Your task to perform on an android device: uninstall "Google News" Image 0: 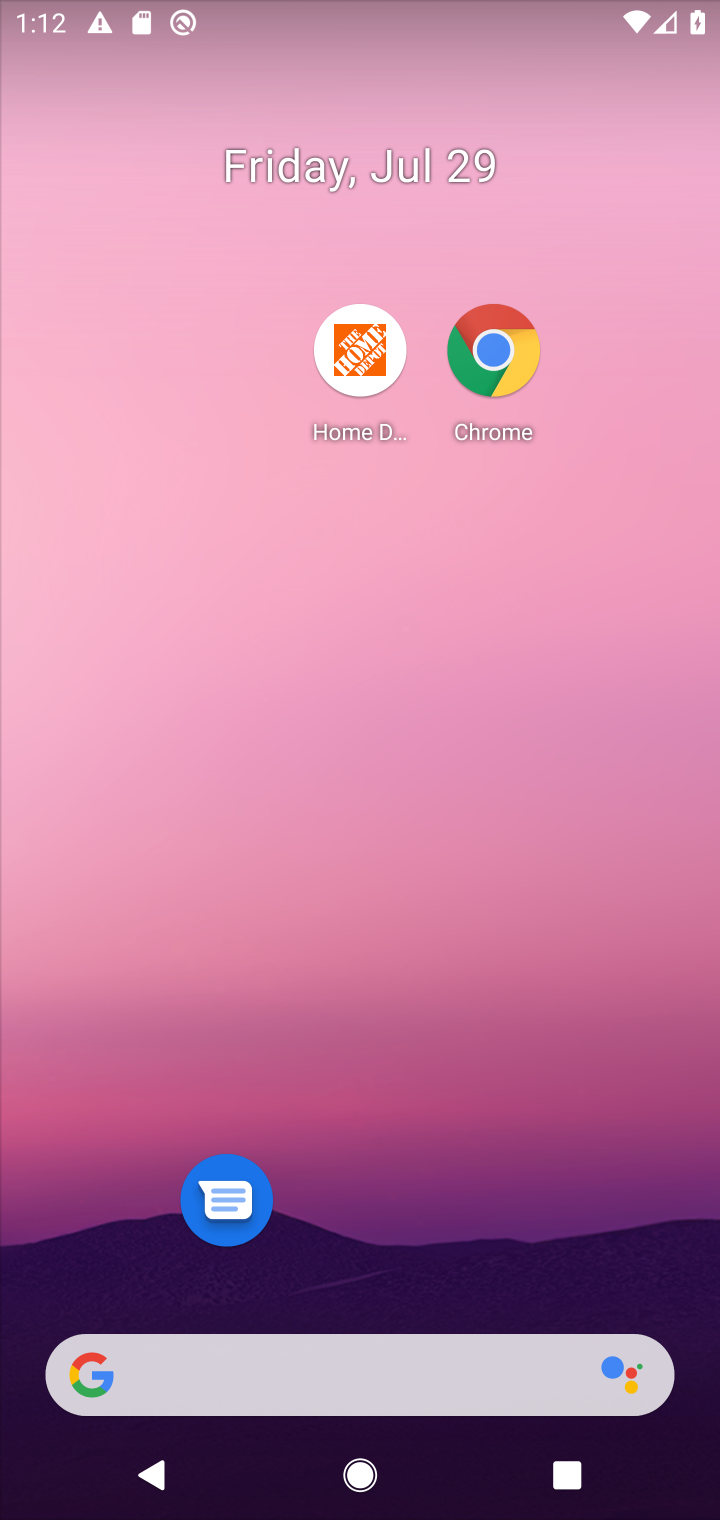
Step 0: drag from (514, 1022) to (348, 28)
Your task to perform on an android device: uninstall "Google News" Image 1: 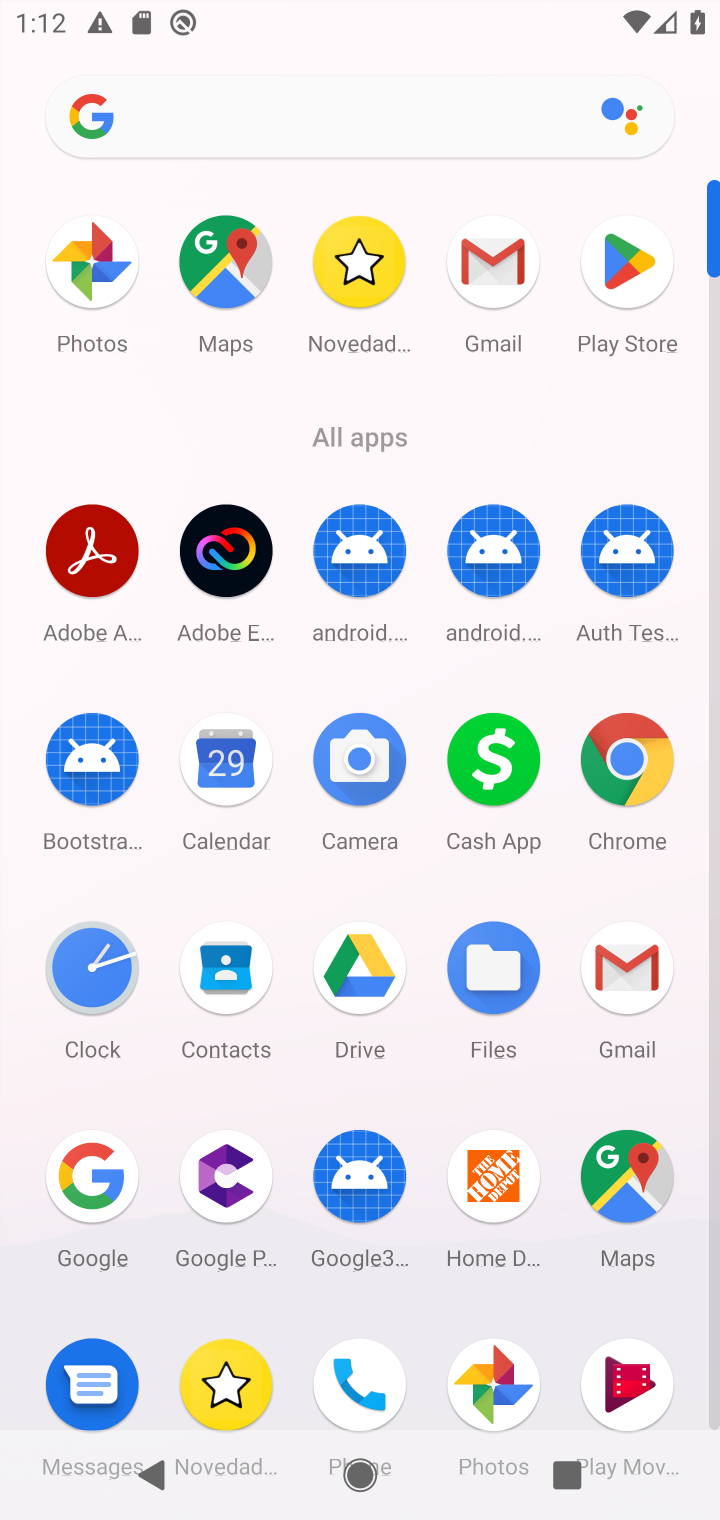
Step 1: click (626, 264)
Your task to perform on an android device: uninstall "Google News" Image 2: 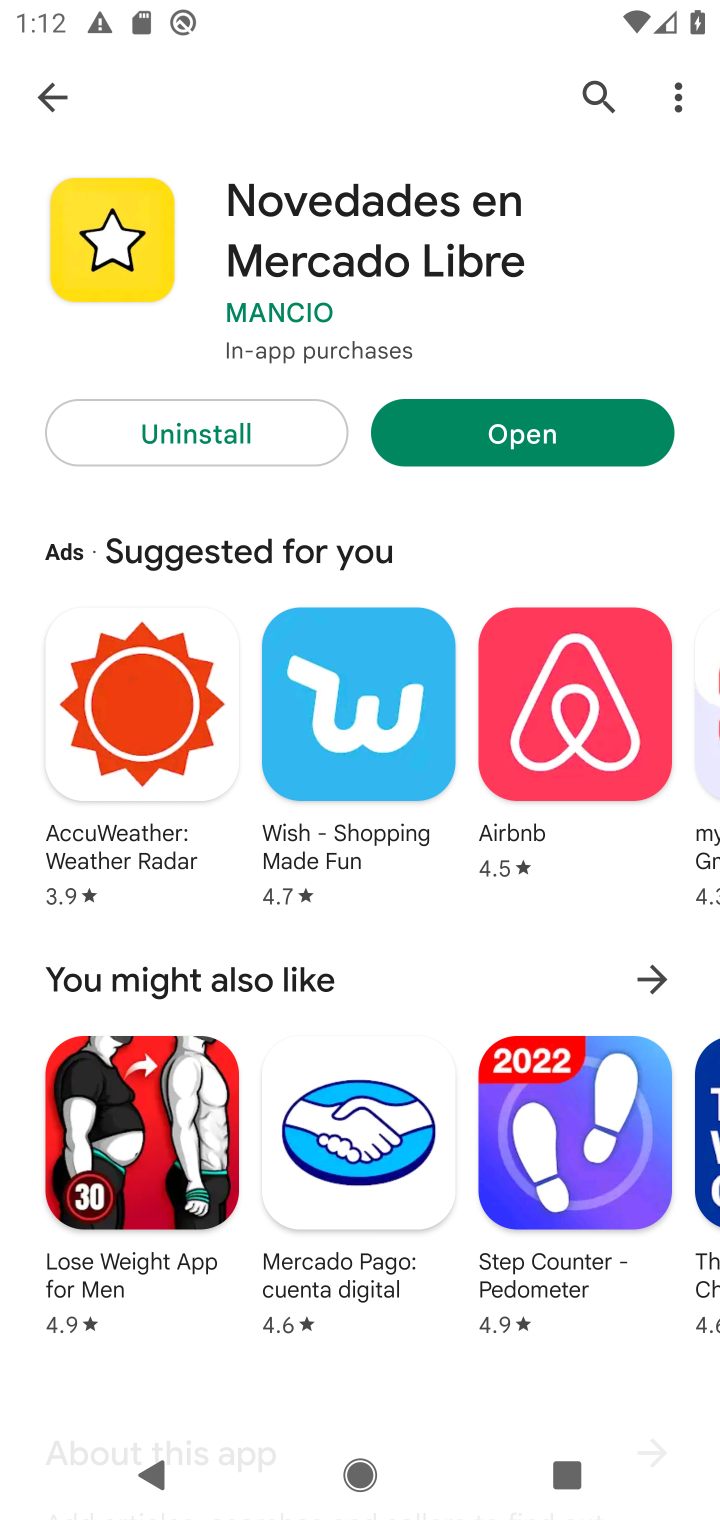
Step 2: click (589, 86)
Your task to perform on an android device: uninstall "Google News" Image 3: 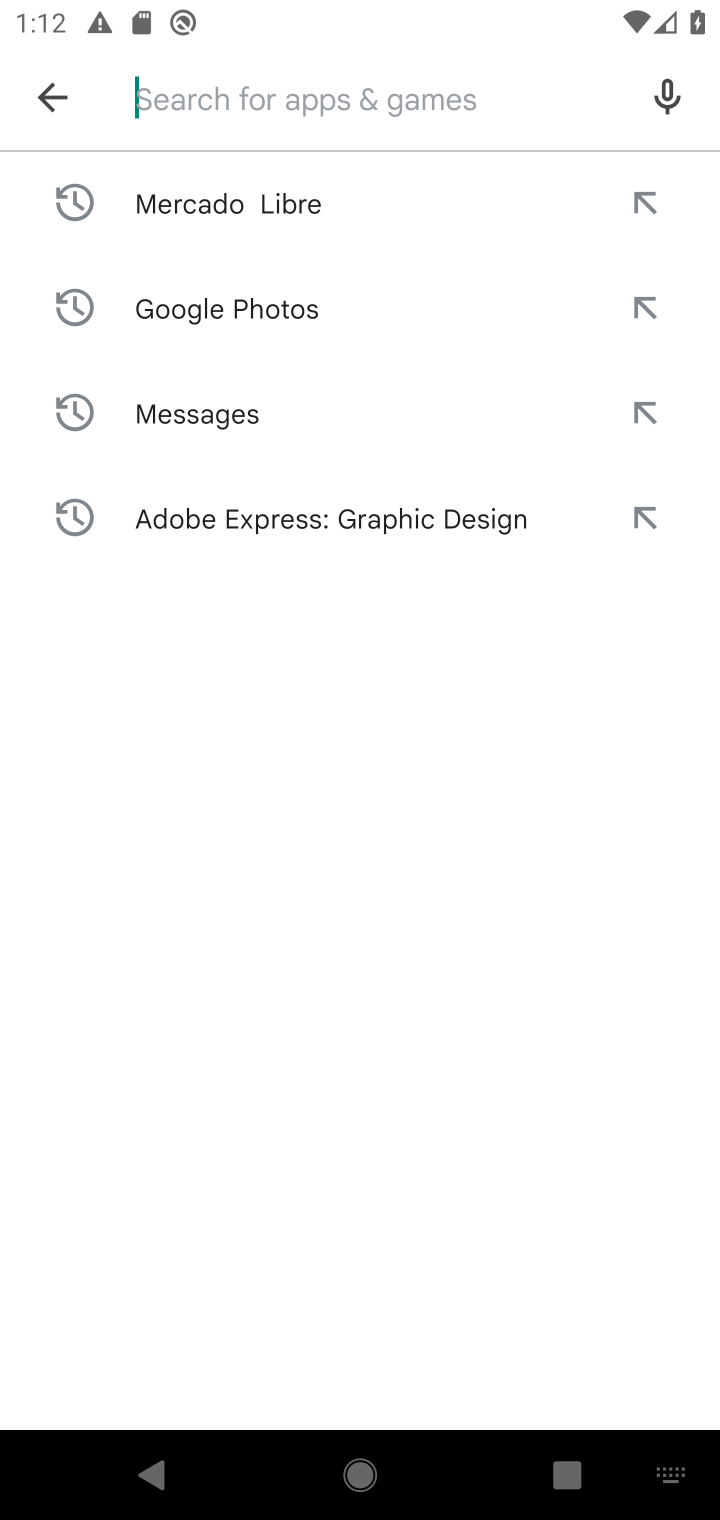
Step 3: type "Google News"
Your task to perform on an android device: uninstall "Google News" Image 4: 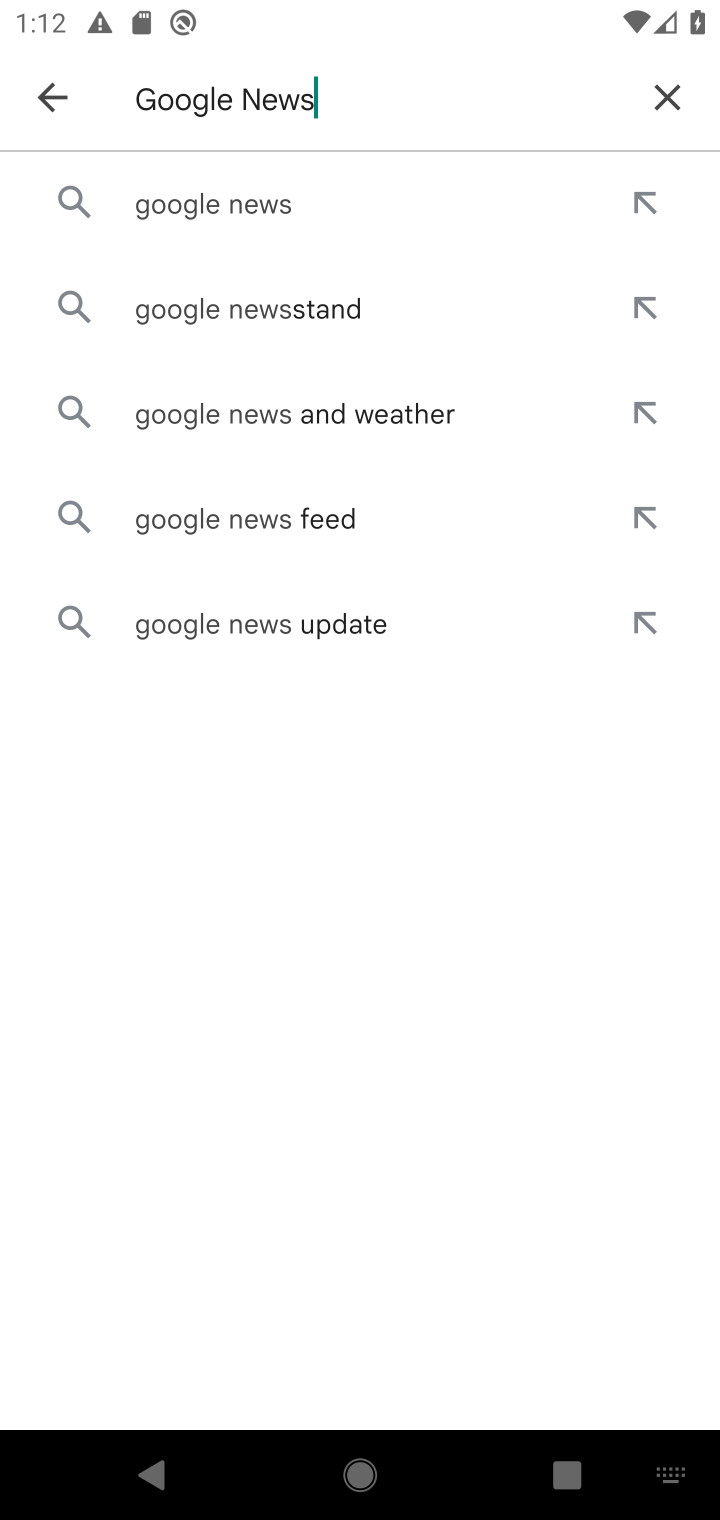
Step 4: press enter
Your task to perform on an android device: uninstall "Google News" Image 5: 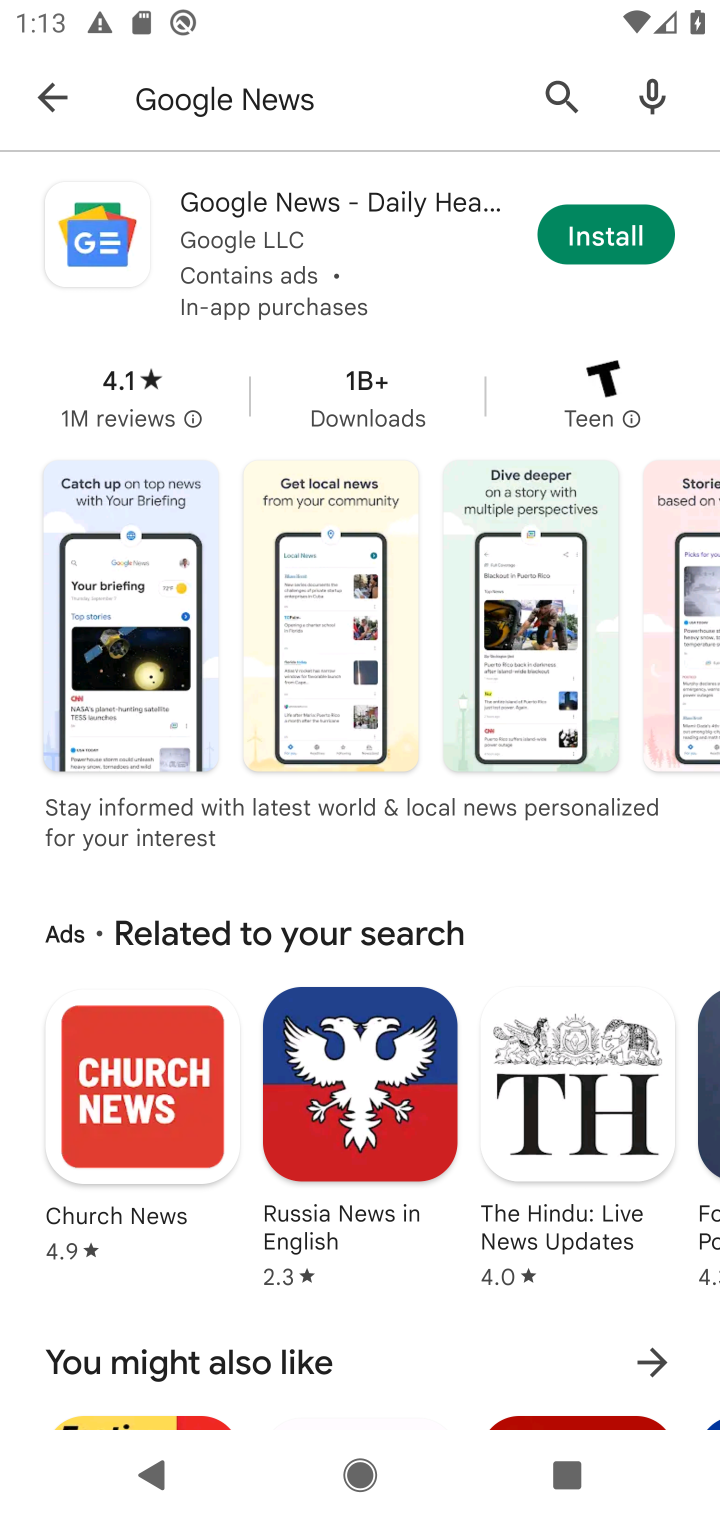
Step 5: task complete